Your task to perform on an android device: open a new tab in the chrome app Image 0: 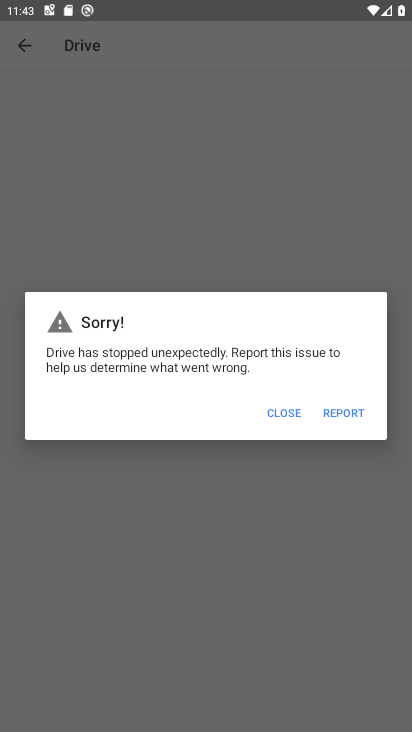
Step 0: press home button
Your task to perform on an android device: open a new tab in the chrome app Image 1: 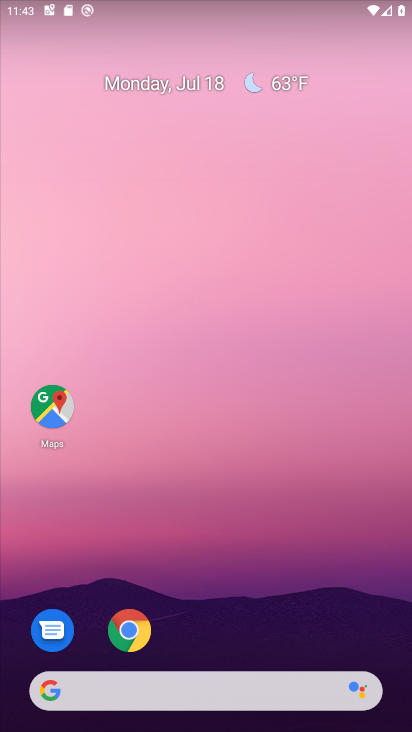
Step 1: click (130, 634)
Your task to perform on an android device: open a new tab in the chrome app Image 2: 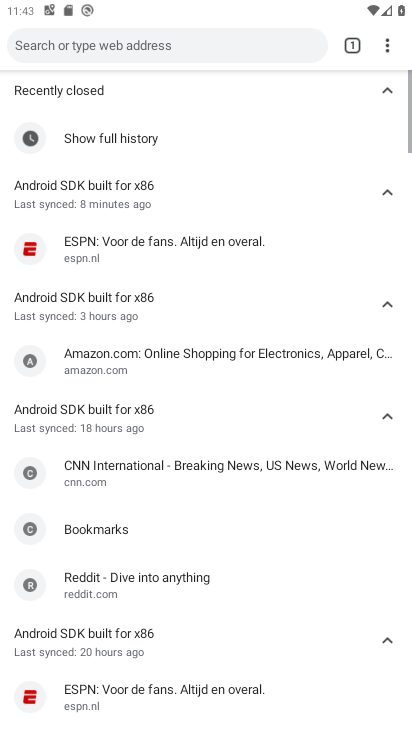
Step 2: click (354, 45)
Your task to perform on an android device: open a new tab in the chrome app Image 3: 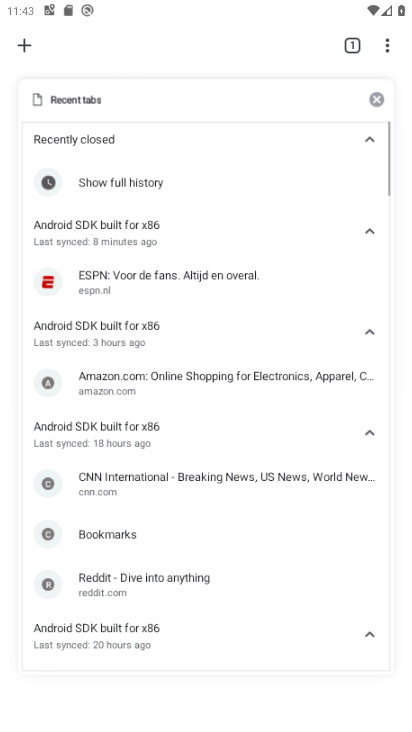
Step 3: click (23, 44)
Your task to perform on an android device: open a new tab in the chrome app Image 4: 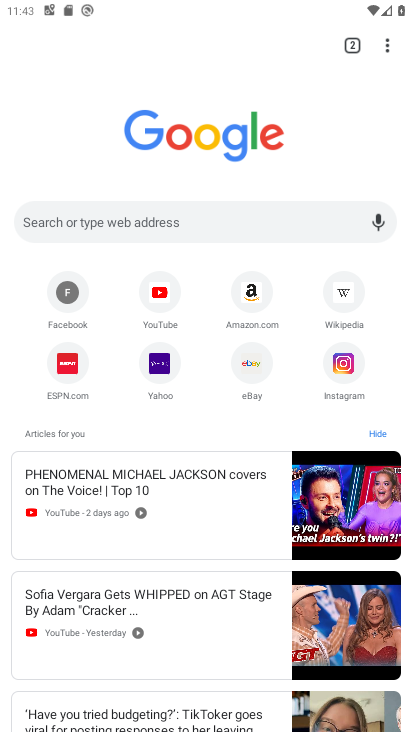
Step 4: task complete